Your task to perform on an android device: toggle translation in the chrome app Image 0: 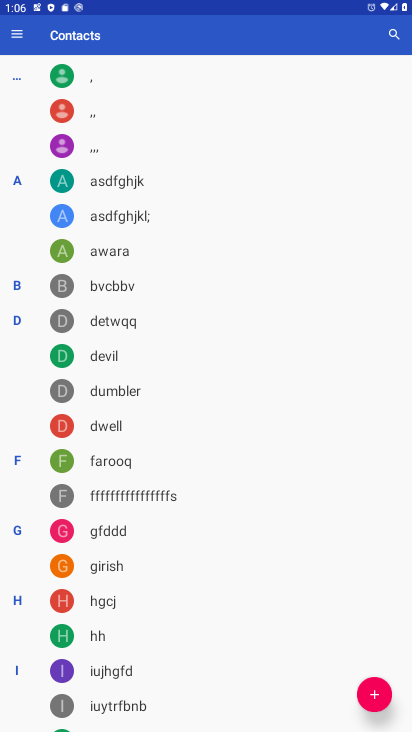
Step 0: press home button
Your task to perform on an android device: toggle translation in the chrome app Image 1: 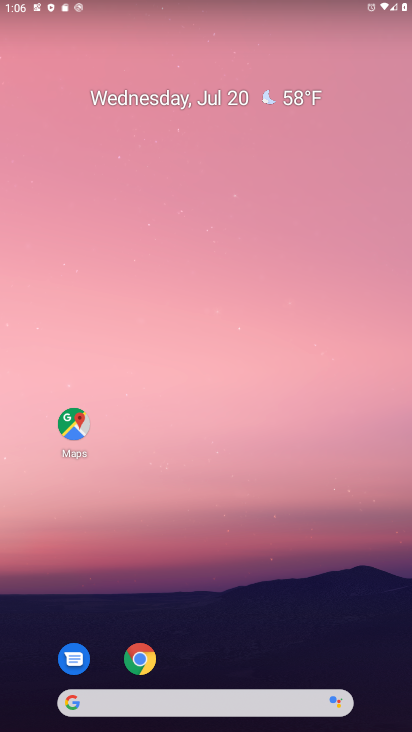
Step 1: click (143, 656)
Your task to perform on an android device: toggle translation in the chrome app Image 2: 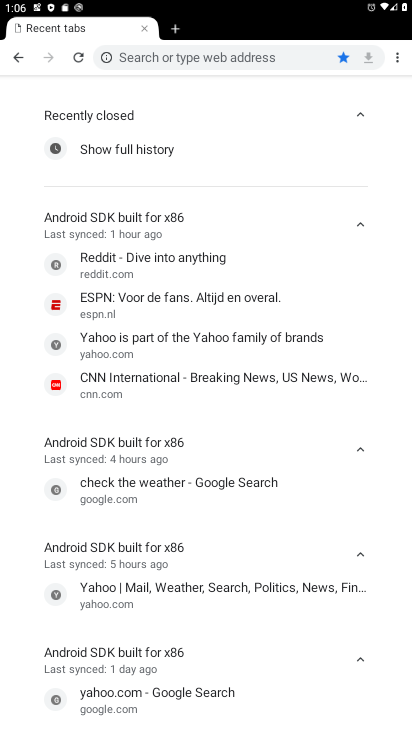
Step 2: click (397, 52)
Your task to perform on an android device: toggle translation in the chrome app Image 3: 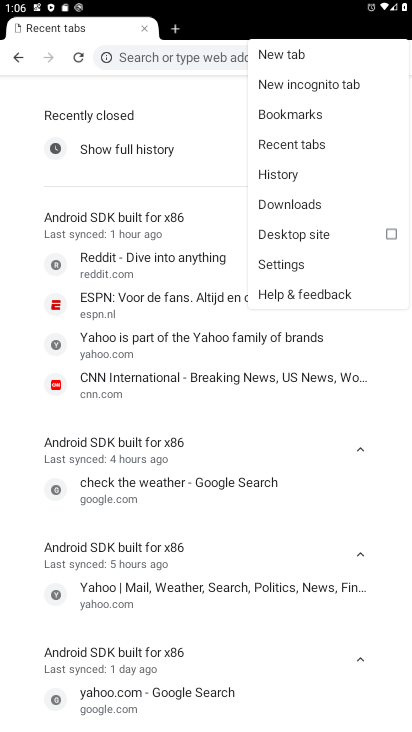
Step 3: click (304, 262)
Your task to perform on an android device: toggle translation in the chrome app Image 4: 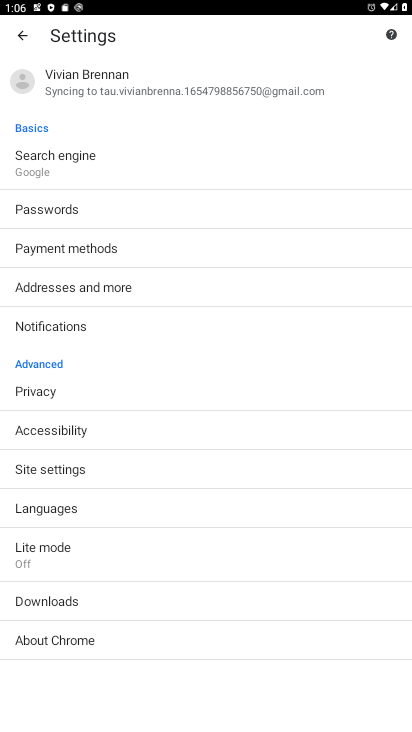
Step 4: click (86, 503)
Your task to perform on an android device: toggle translation in the chrome app Image 5: 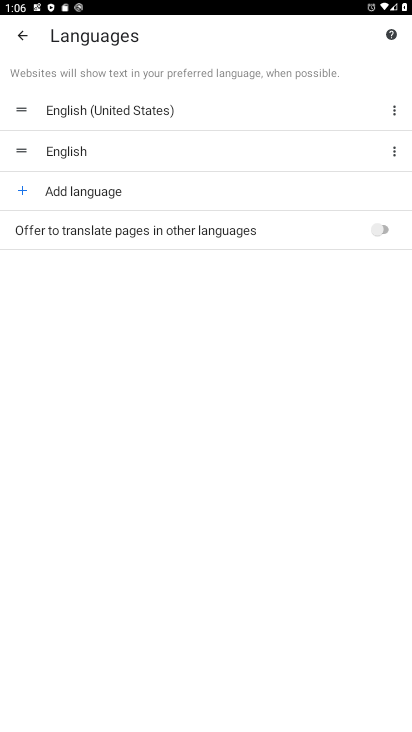
Step 5: click (380, 224)
Your task to perform on an android device: toggle translation in the chrome app Image 6: 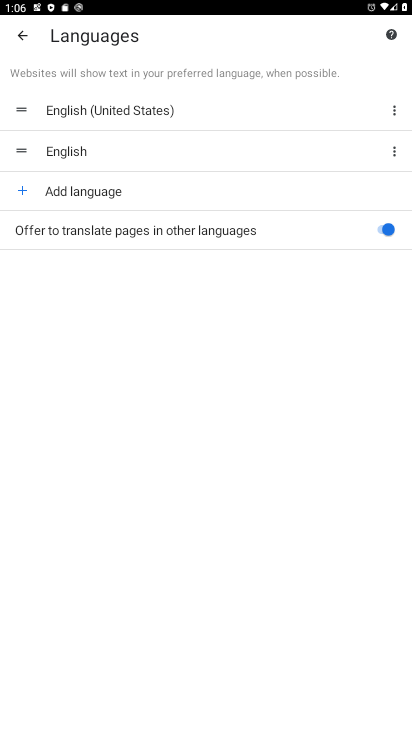
Step 6: task complete